Your task to perform on an android device: open device folders in google photos Image 0: 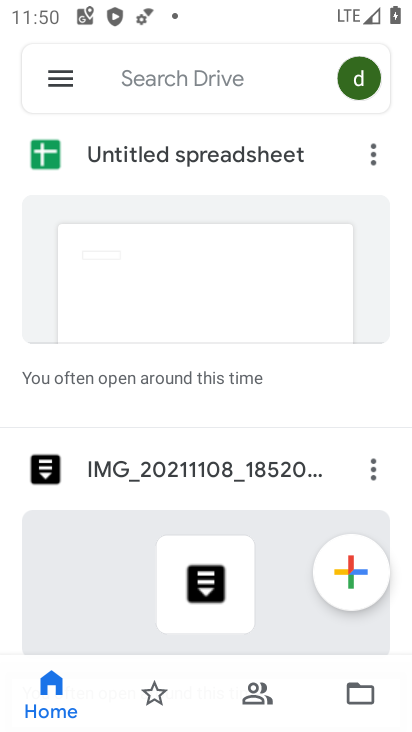
Step 0: press home button
Your task to perform on an android device: open device folders in google photos Image 1: 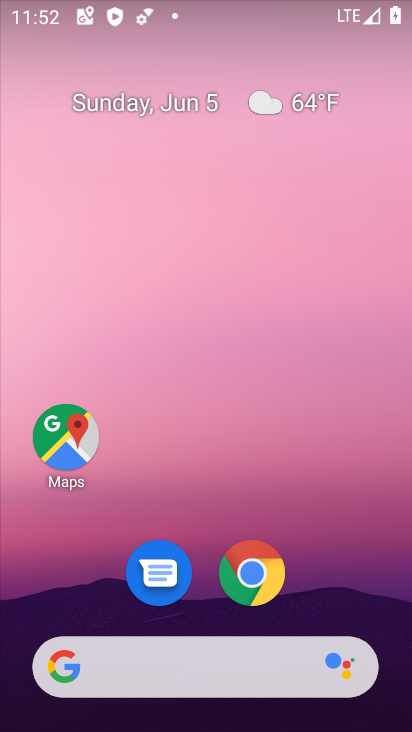
Step 1: drag from (89, 570) to (384, 164)
Your task to perform on an android device: open device folders in google photos Image 2: 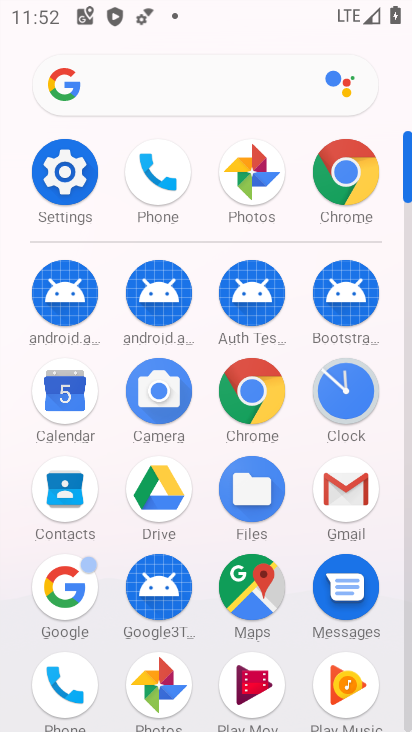
Step 2: click (250, 177)
Your task to perform on an android device: open device folders in google photos Image 3: 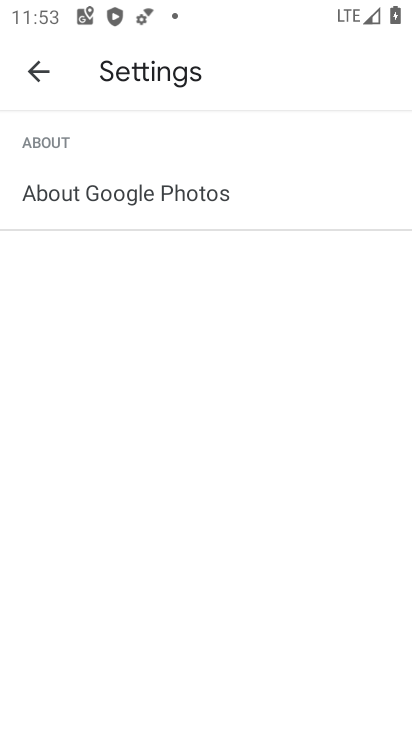
Step 3: press home button
Your task to perform on an android device: open device folders in google photos Image 4: 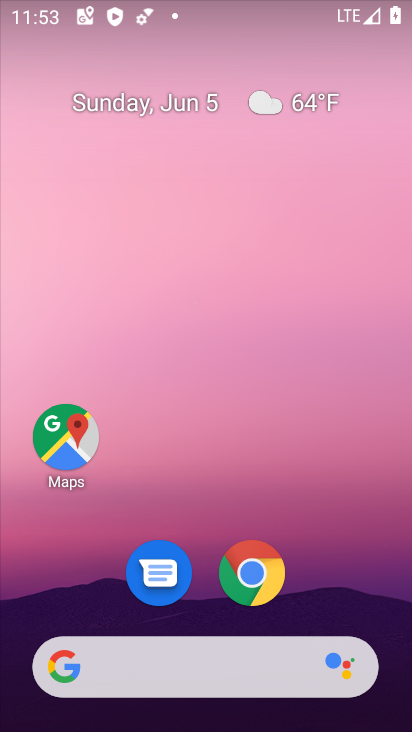
Step 4: drag from (33, 535) to (282, 158)
Your task to perform on an android device: open device folders in google photos Image 5: 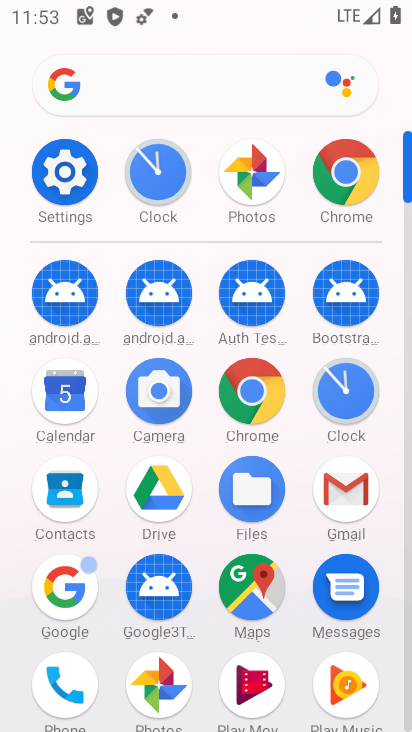
Step 5: click (274, 192)
Your task to perform on an android device: open device folders in google photos Image 6: 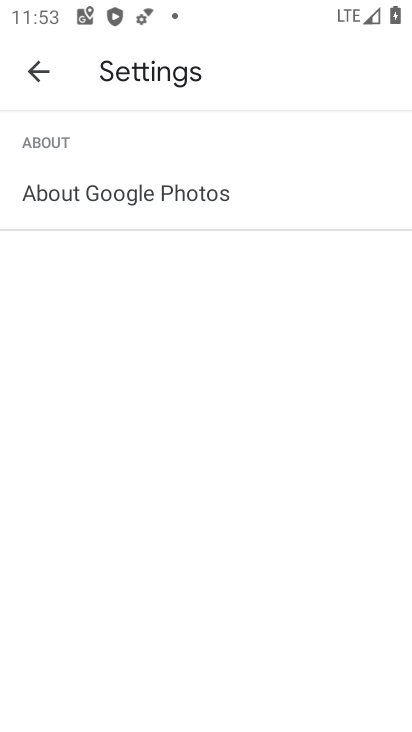
Step 6: click (41, 72)
Your task to perform on an android device: open device folders in google photos Image 7: 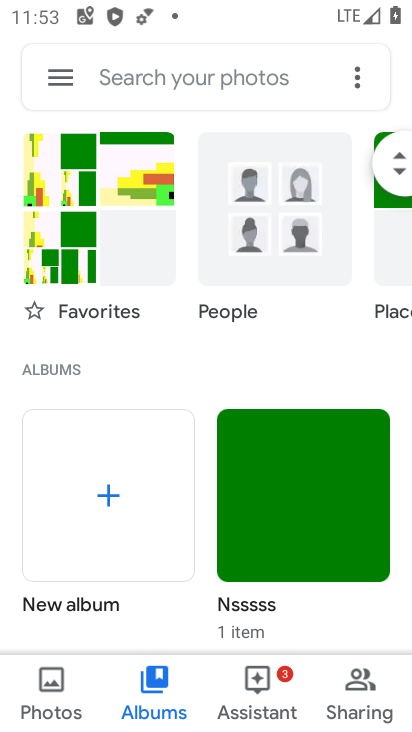
Step 7: click (60, 77)
Your task to perform on an android device: open device folders in google photos Image 8: 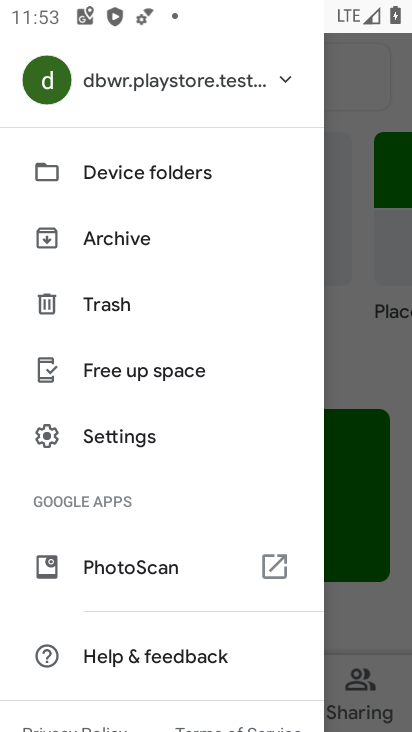
Step 8: click (97, 177)
Your task to perform on an android device: open device folders in google photos Image 9: 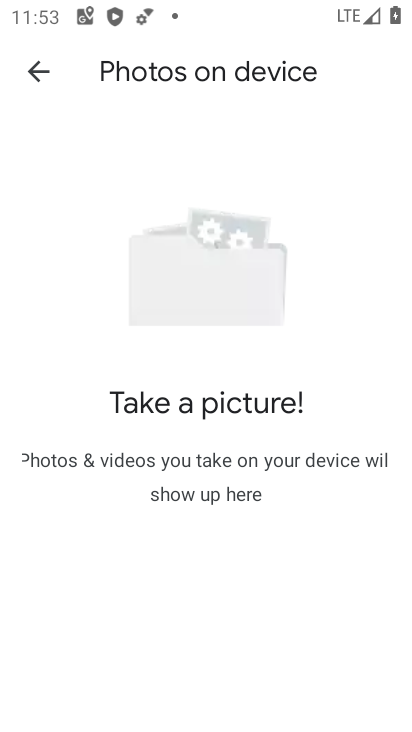
Step 9: task complete